Your task to perform on an android device: Open network settings Image 0: 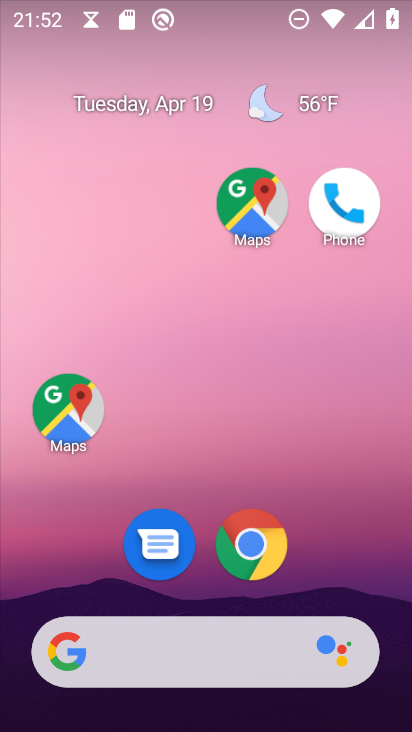
Step 0: drag from (195, 649) to (344, 14)
Your task to perform on an android device: Open network settings Image 1: 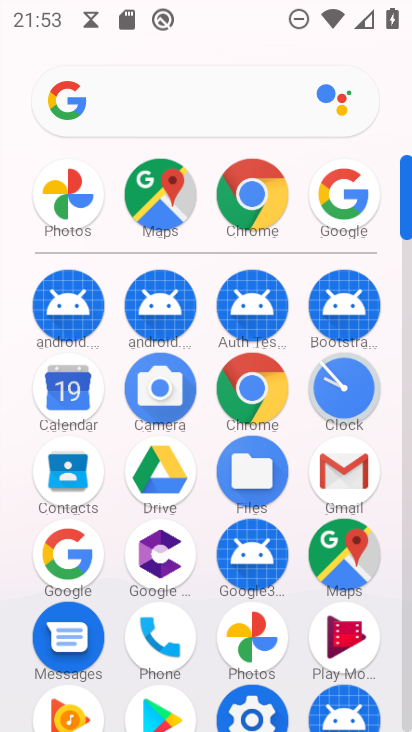
Step 1: drag from (214, 554) to (354, 180)
Your task to perform on an android device: Open network settings Image 2: 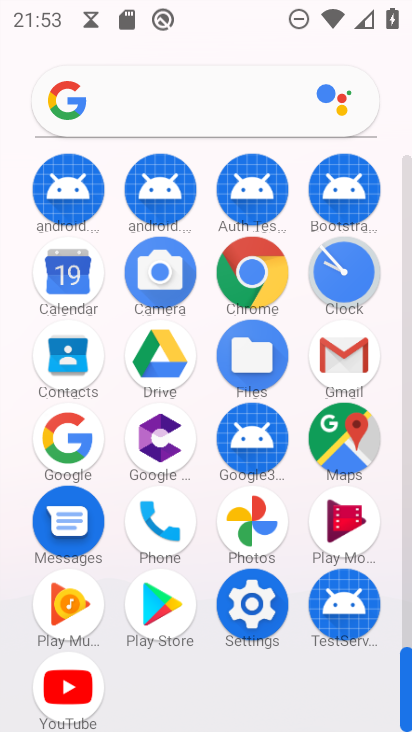
Step 2: click (252, 610)
Your task to perform on an android device: Open network settings Image 3: 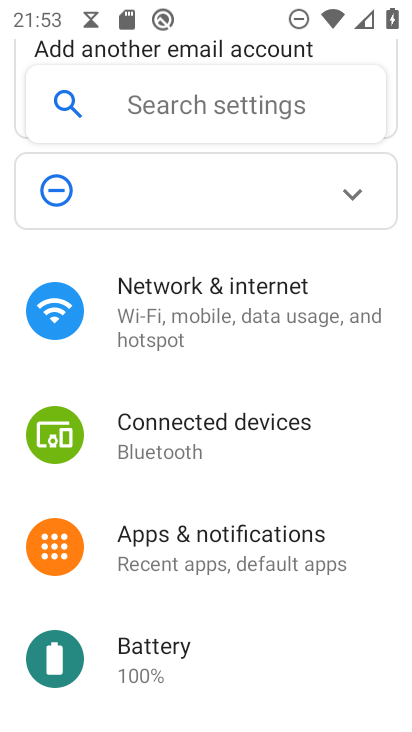
Step 3: click (220, 290)
Your task to perform on an android device: Open network settings Image 4: 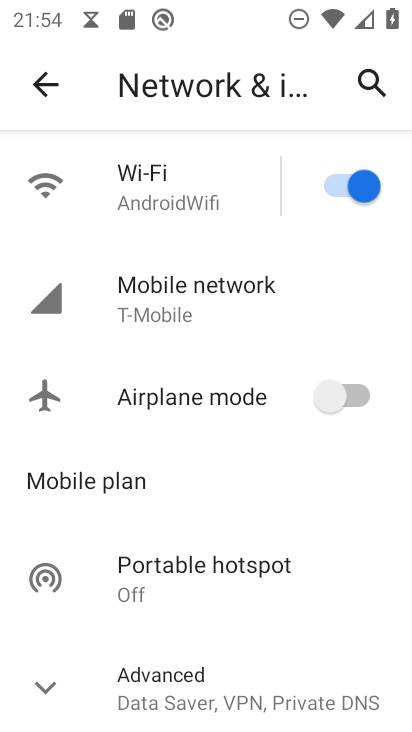
Step 4: task complete